Your task to perform on an android device: turn on location history Image 0: 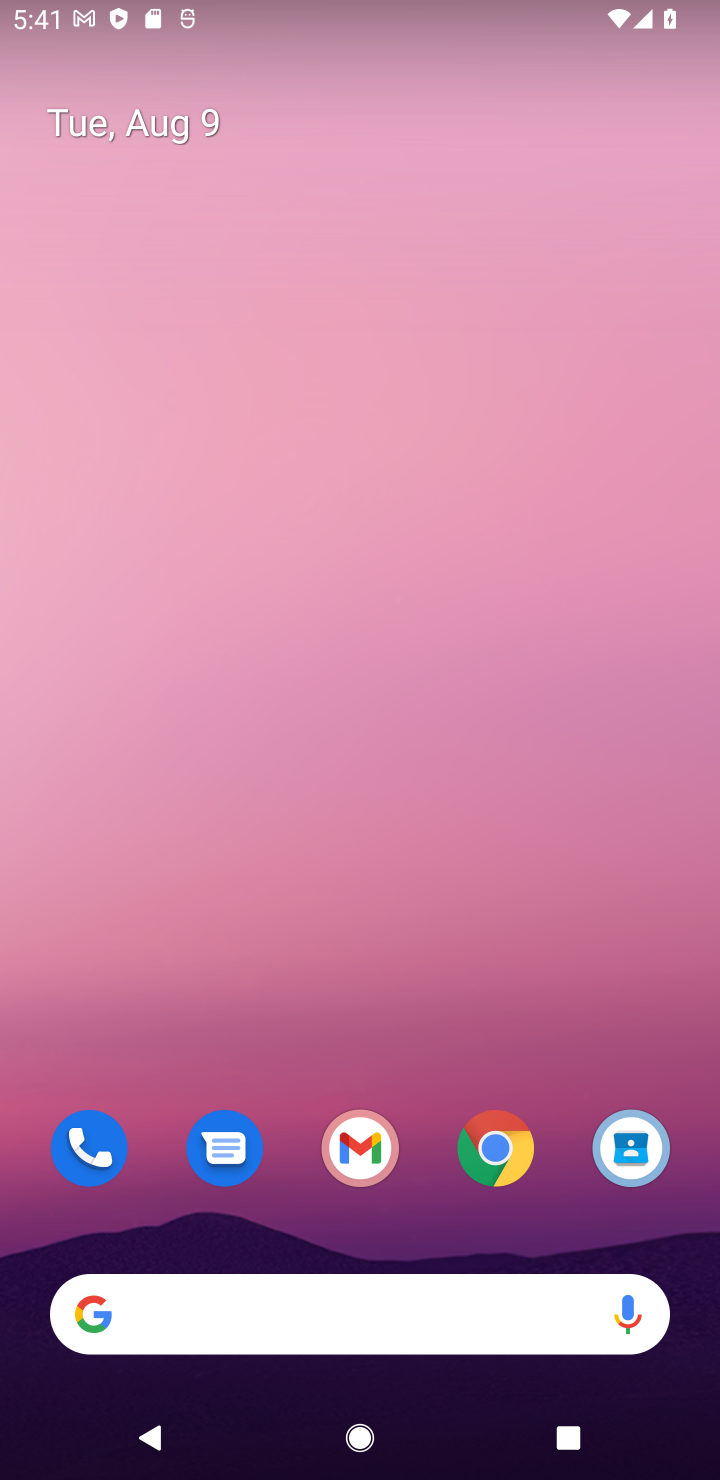
Step 0: drag from (308, 728) to (409, 45)
Your task to perform on an android device: turn on location history Image 1: 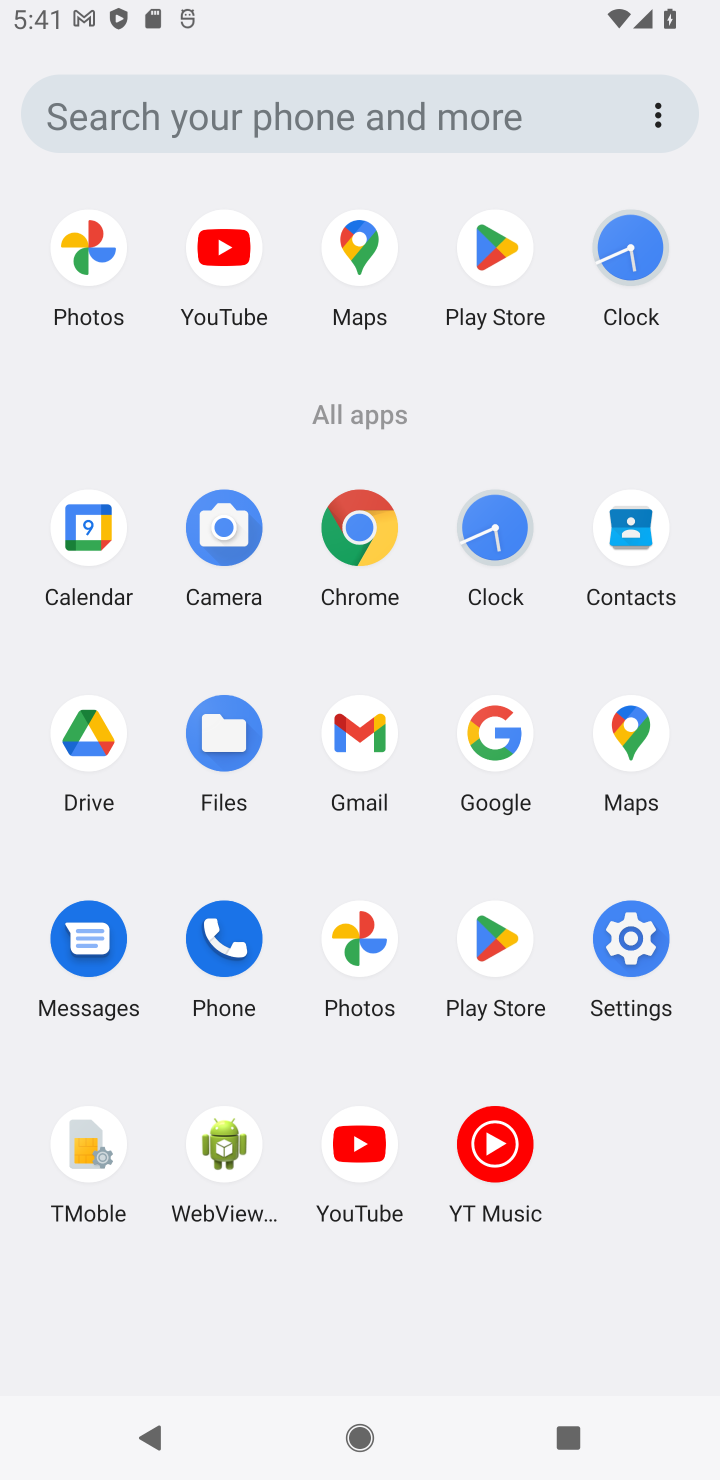
Step 1: click (654, 1010)
Your task to perform on an android device: turn on location history Image 2: 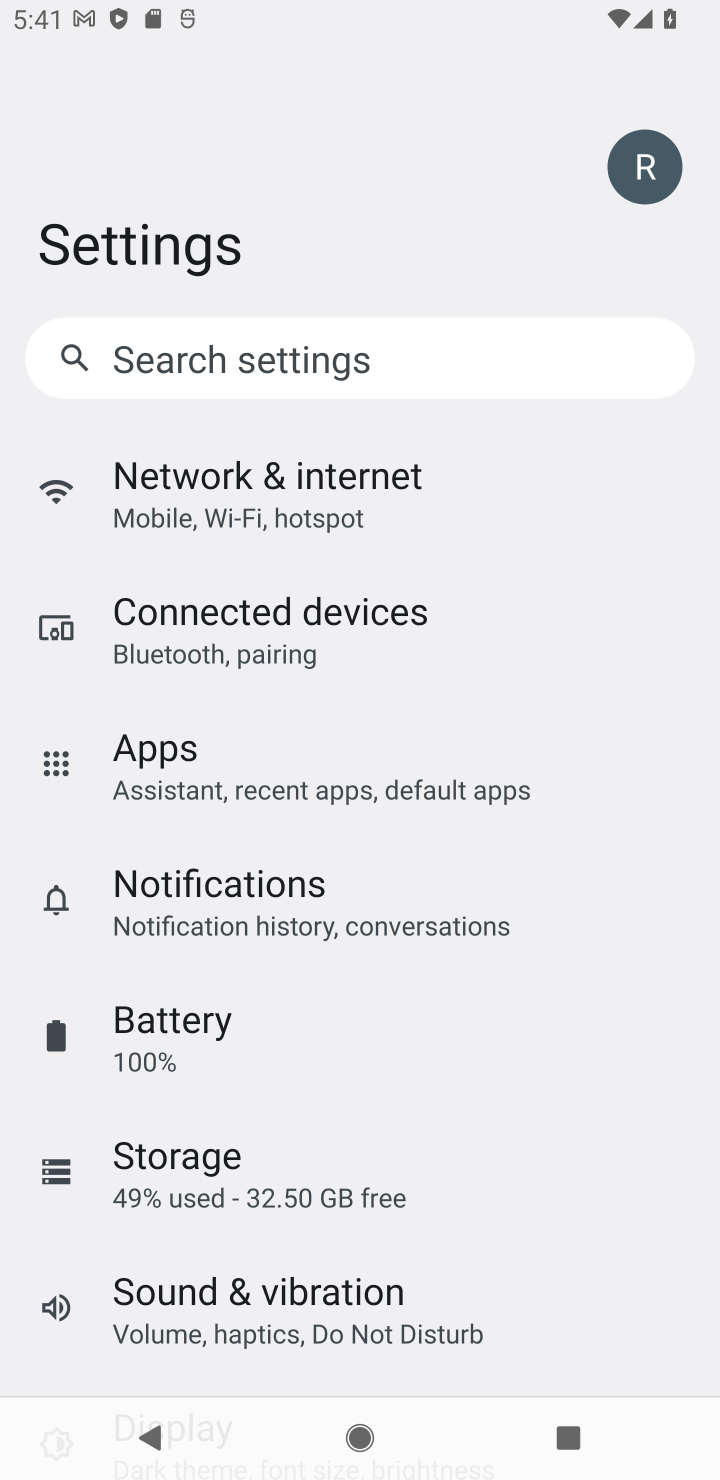
Step 2: drag from (271, 1234) to (315, 574)
Your task to perform on an android device: turn on location history Image 3: 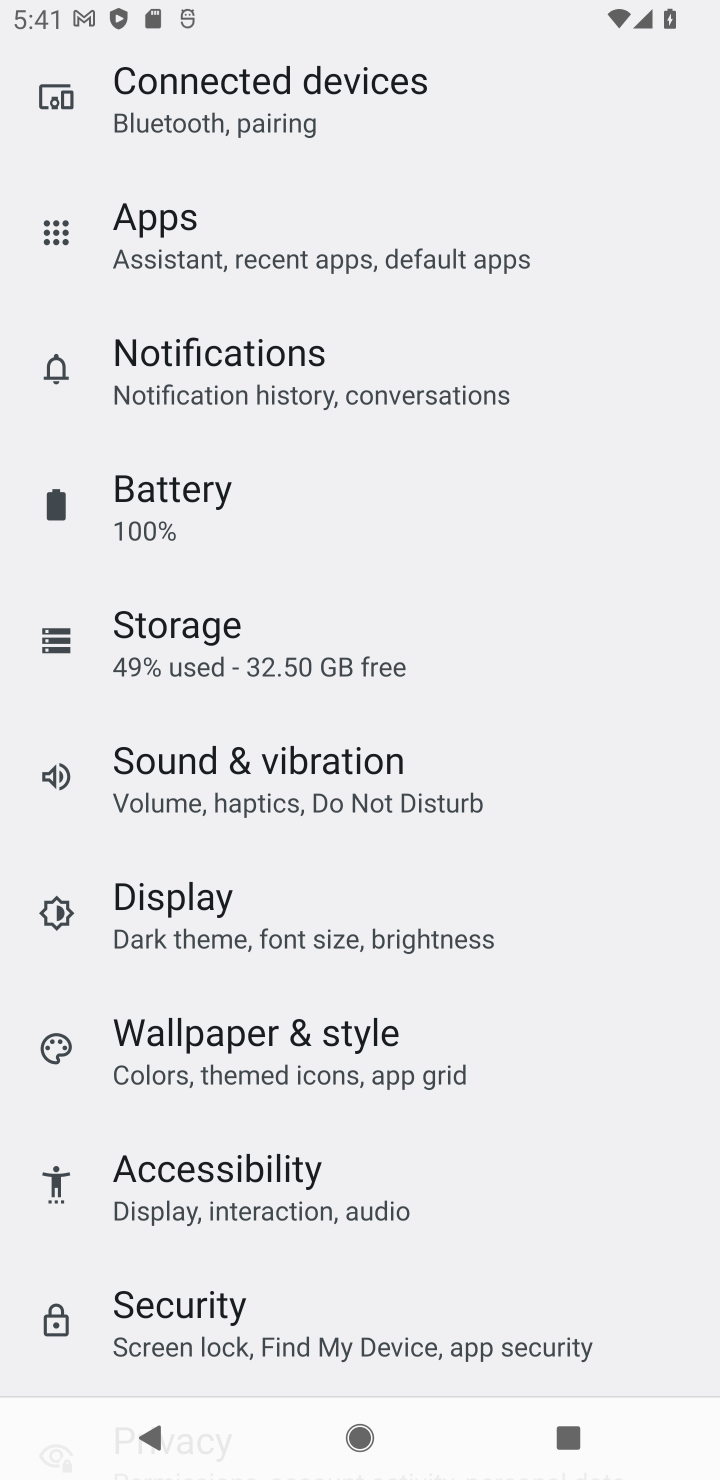
Step 3: drag from (246, 1178) to (400, 450)
Your task to perform on an android device: turn on location history Image 4: 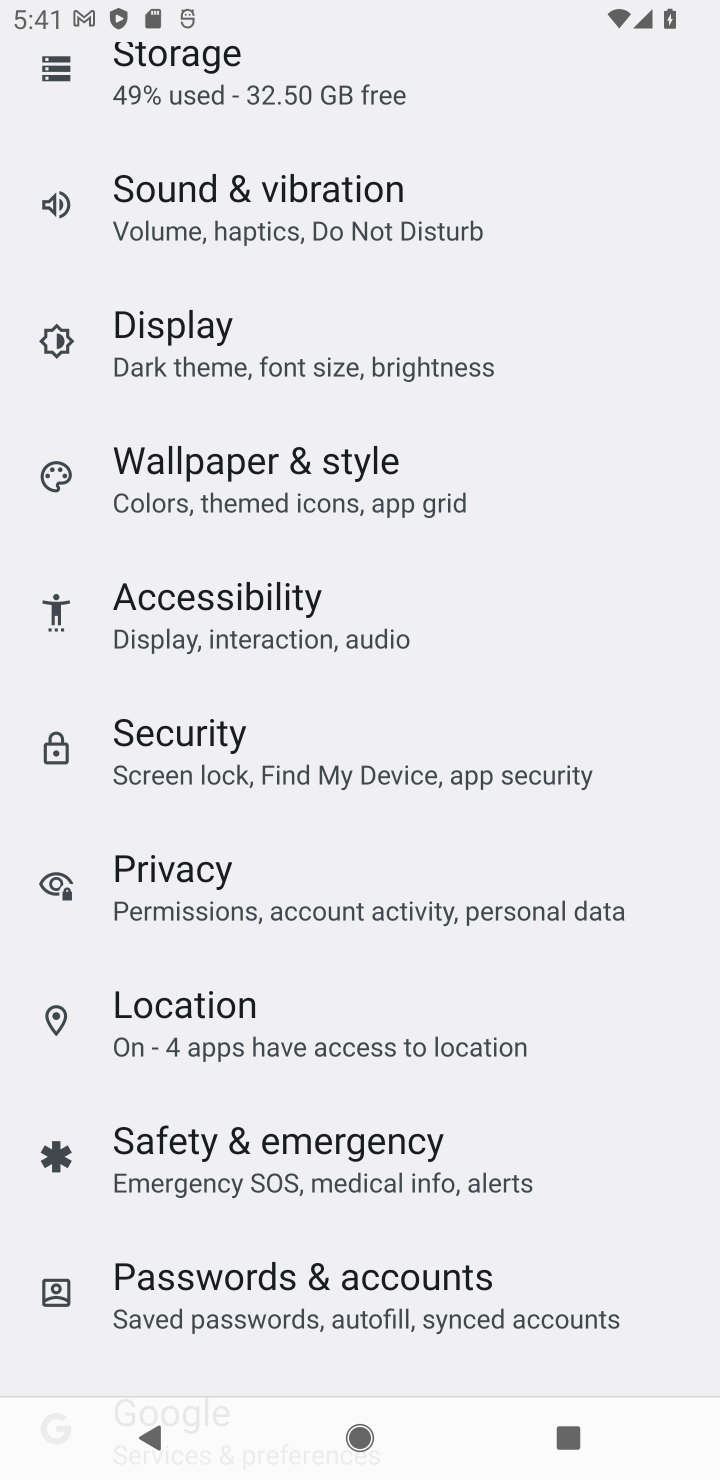
Step 4: click (287, 1042)
Your task to perform on an android device: turn on location history Image 5: 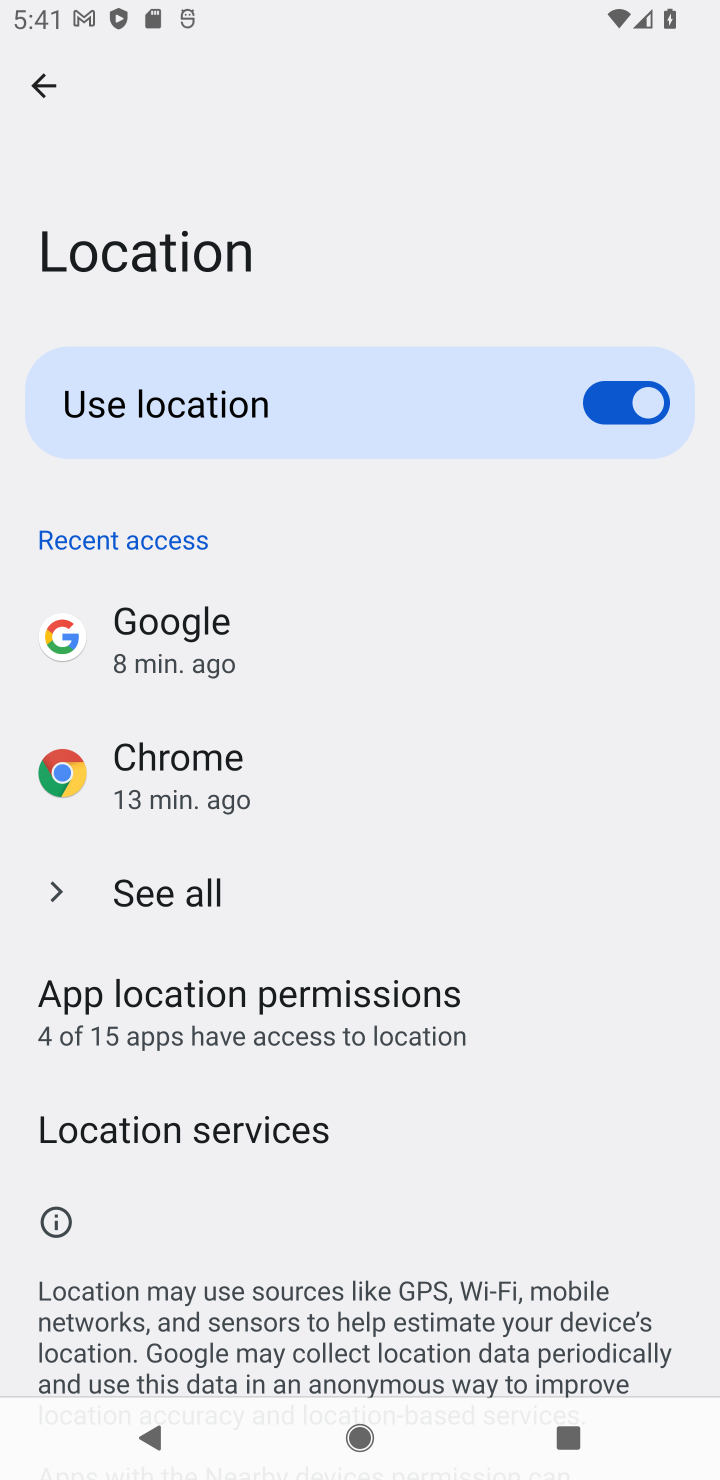
Step 5: click (245, 1132)
Your task to perform on an android device: turn on location history Image 6: 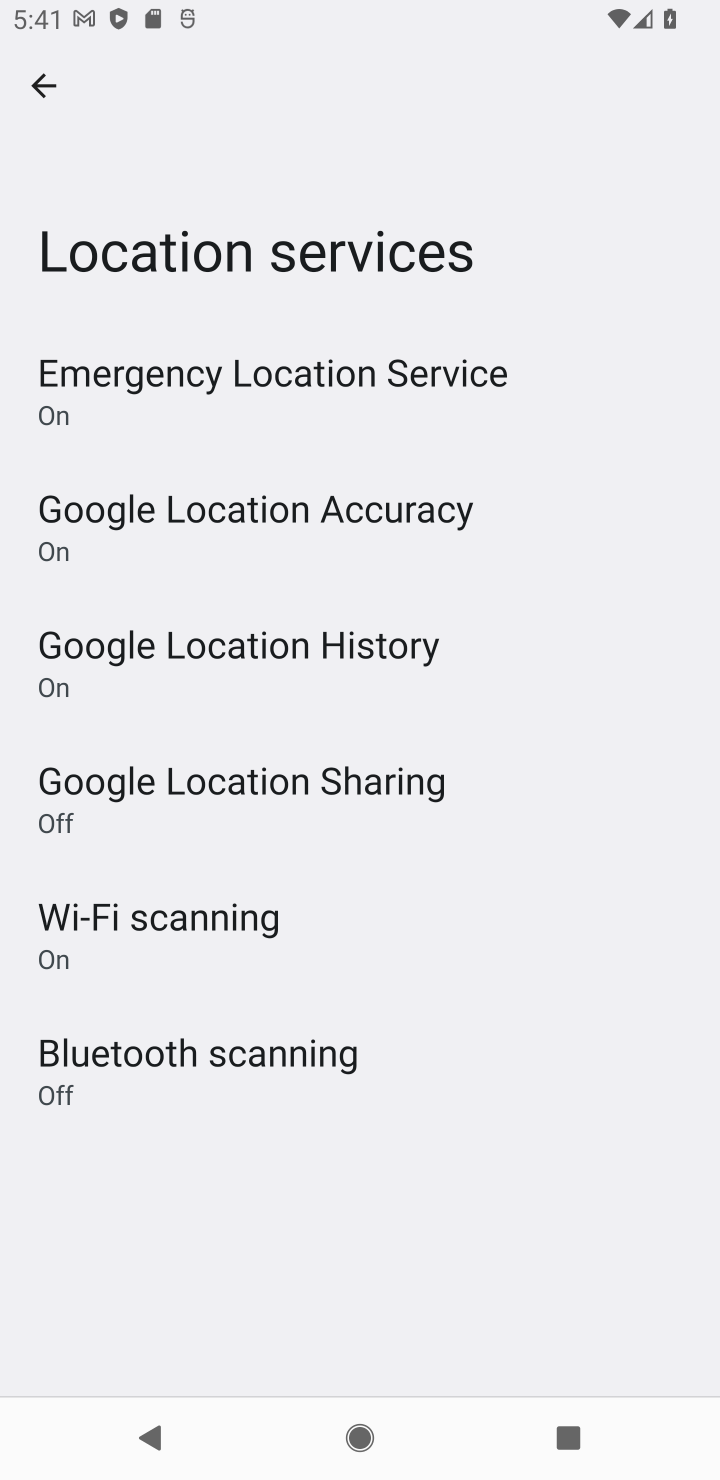
Step 6: click (266, 651)
Your task to perform on an android device: turn on location history Image 7: 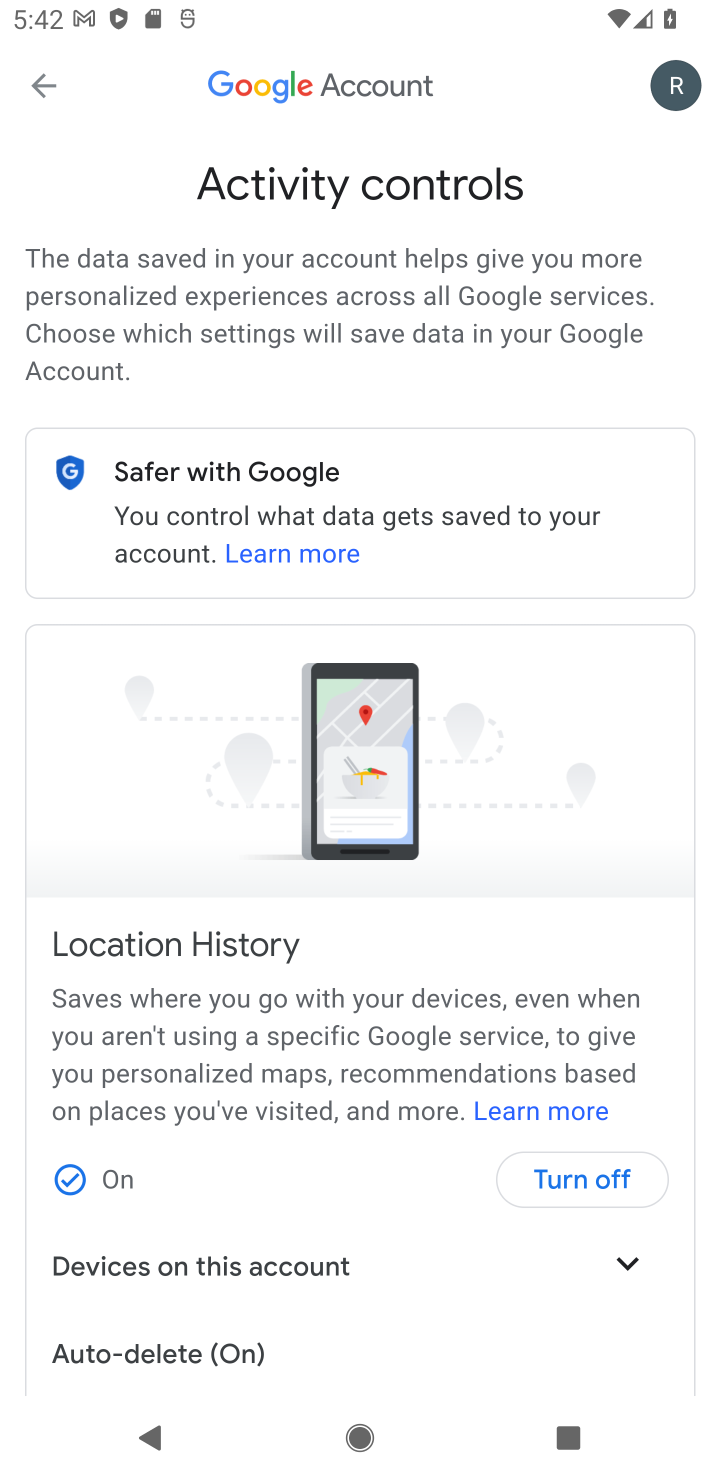
Step 7: task complete